Your task to perform on an android device: turn notification dots on Image 0: 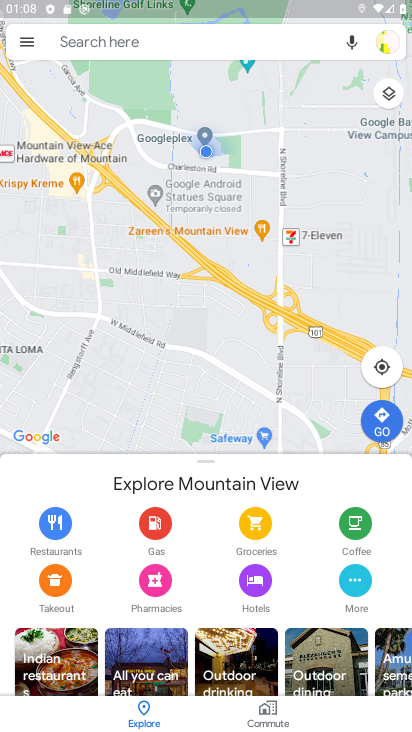
Step 0: press home button
Your task to perform on an android device: turn notification dots on Image 1: 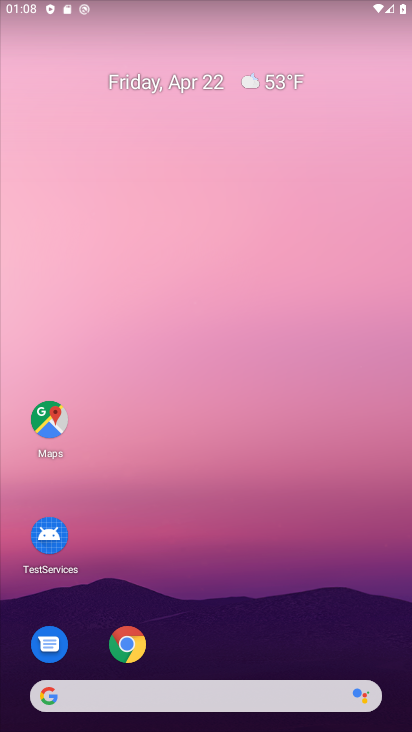
Step 1: drag from (242, 273) to (237, 95)
Your task to perform on an android device: turn notification dots on Image 2: 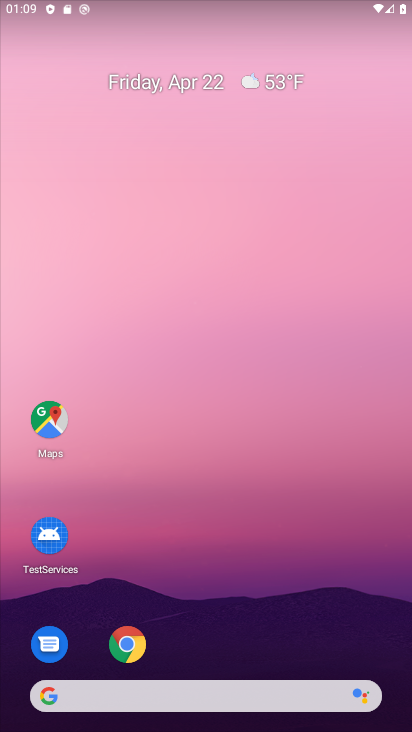
Step 2: drag from (290, 561) to (295, 76)
Your task to perform on an android device: turn notification dots on Image 3: 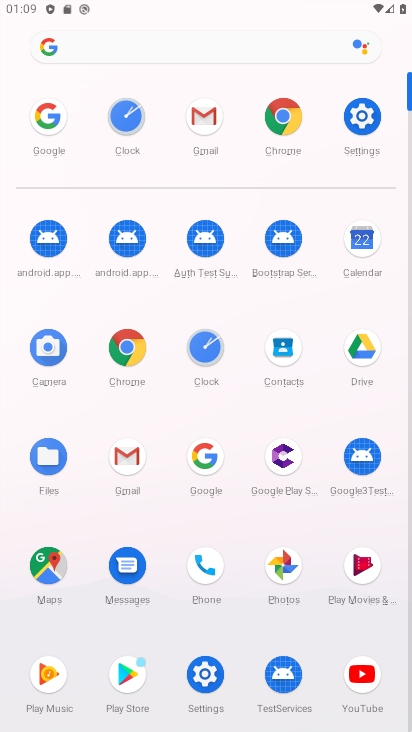
Step 3: click (360, 111)
Your task to perform on an android device: turn notification dots on Image 4: 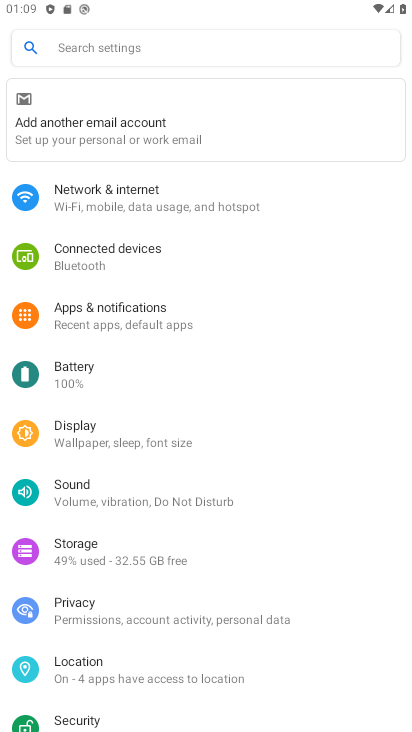
Step 4: drag from (201, 551) to (242, 151)
Your task to perform on an android device: turn notification dots on Image 5: 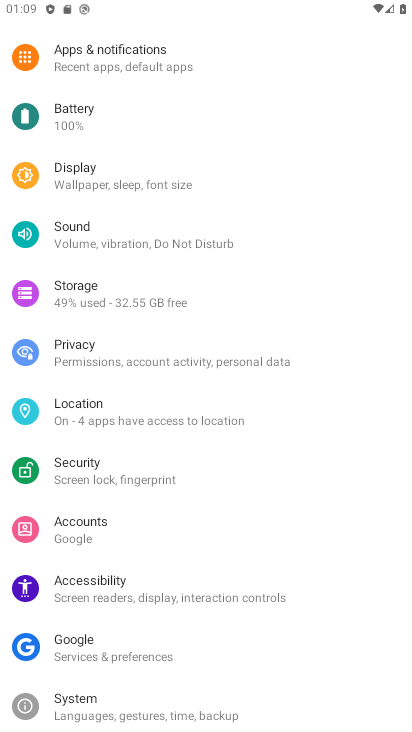
Step 5: click (138, 61)
Your task to perform on an android device: turn notification dots on Image 6: 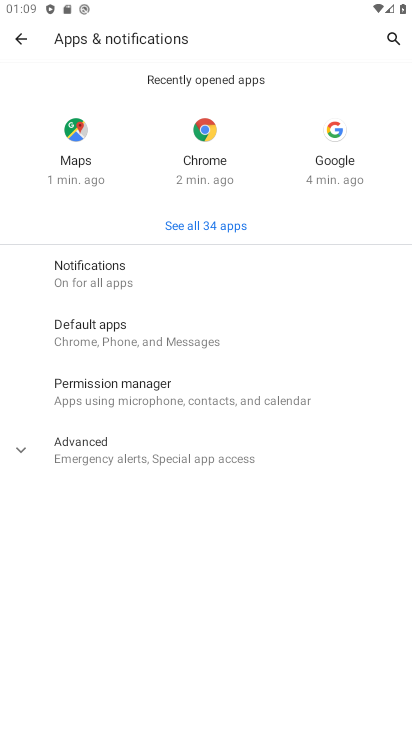
Step 6: click (114, 281)
Your task to perform on an android device: turn notification dots on Image 7: 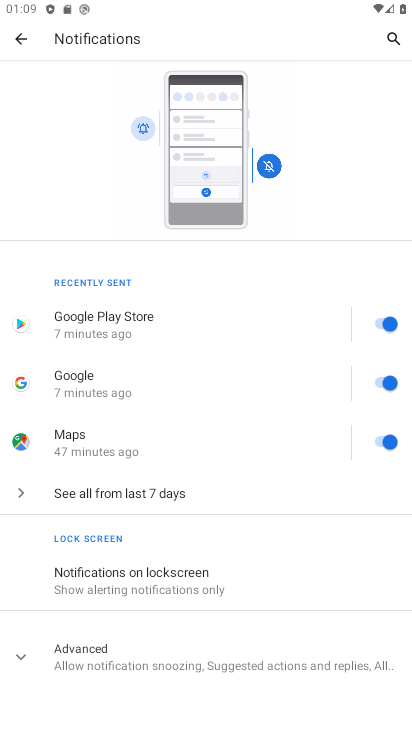
Step 7: click (210, 653)
Your task to perform on an android device: turn notification dots on Image 8: 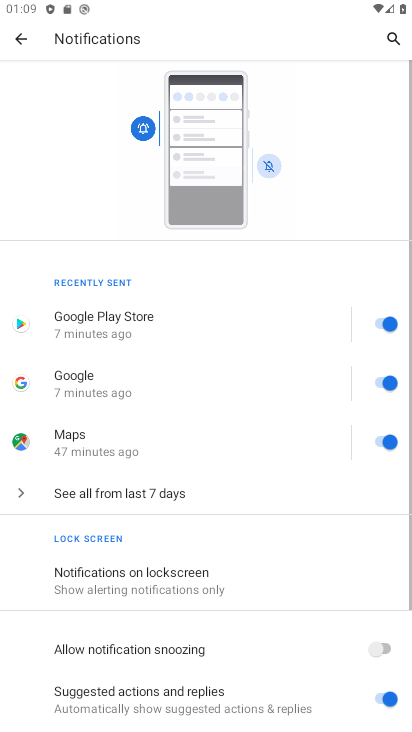
Step 8: task complete